Your task to perform on an android device: Open calendar and show me the third week of next month Image 0: 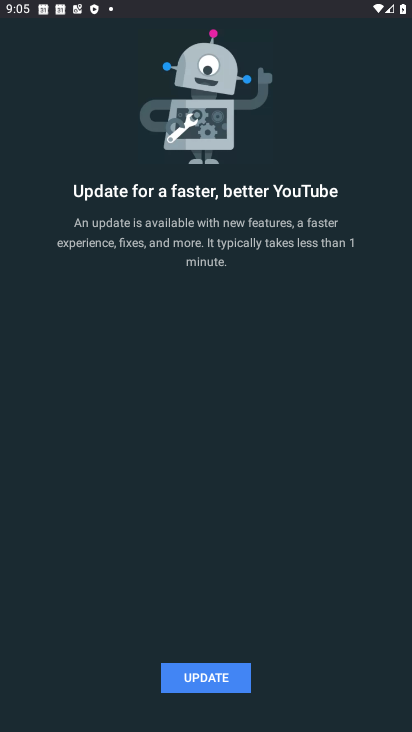
Step 0: press home button
Your task to perform on an android device: Open calendar and show me the third week of next month Image 1: 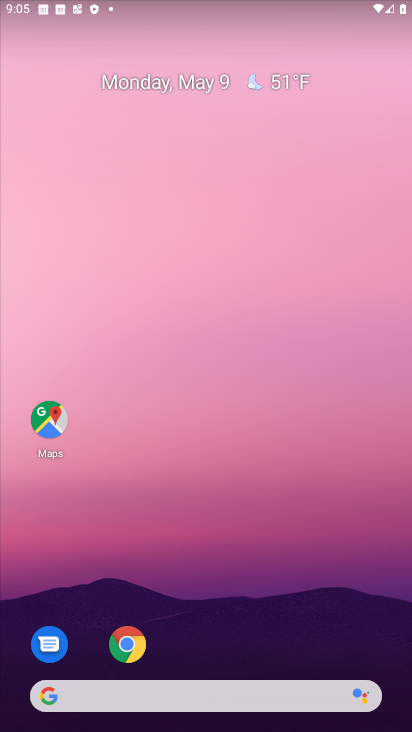
Step 1: drag from (212, 678) to (129, 0)
Your task to perform on an android device: Open calendar and show me the third week of next month Image 2: 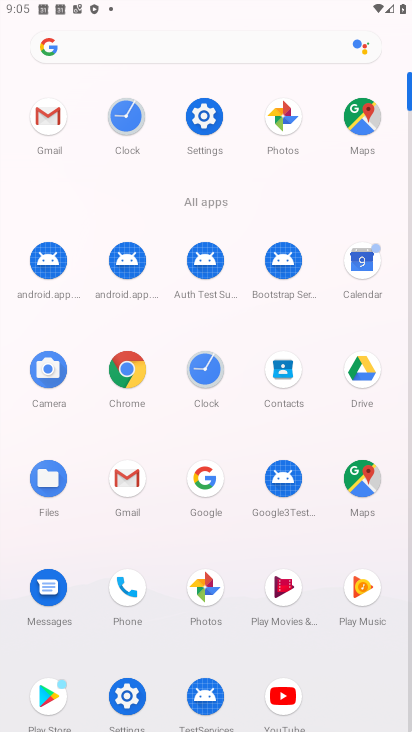
Step 2: click (357, 265)
Your task to perform on an android device: Open calendar and show me the third week of next month Image 3: 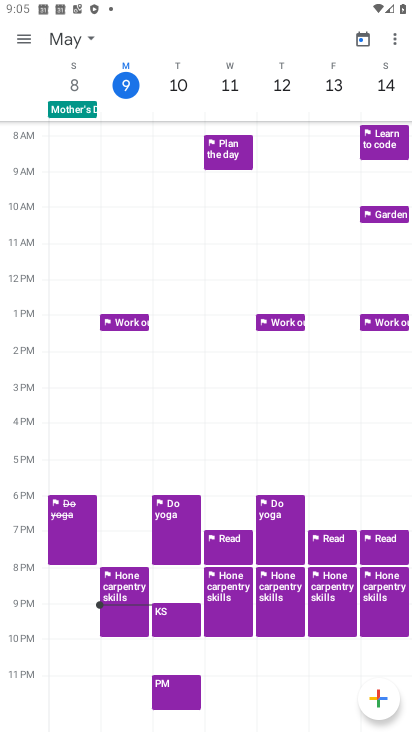
Step 3: task complete